Your task to perform on an android device: Go to ESPN.com Image 0: 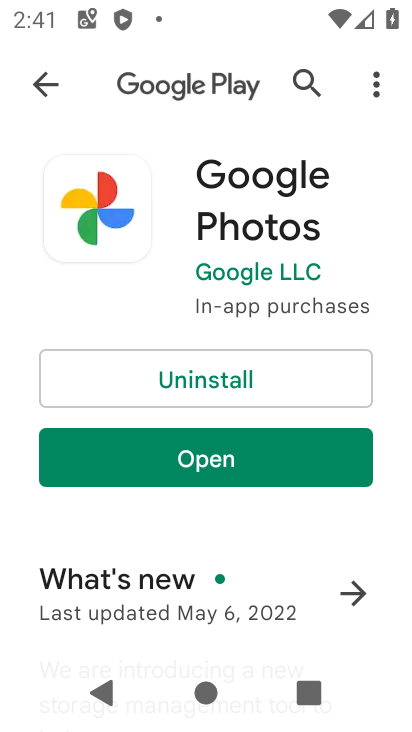
Step 0: press home button
Your task to perform on an android device: Go to ESPN.com Image 1: 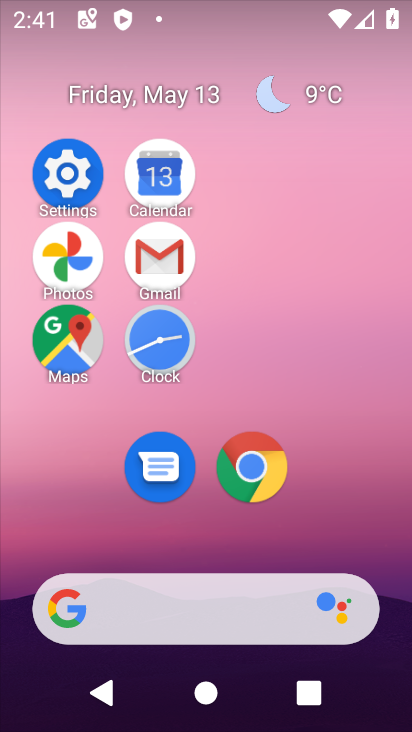
Step 1: click (255, 472)
Your task to perform on an android device: Go to ESPN.com Image 2: 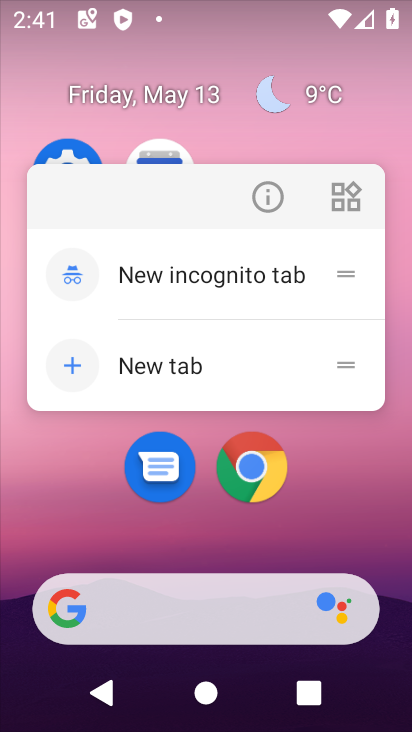
Step 2: click (251, 460)
Your task to perform on an android device: Go to ESPN.com Image 3: 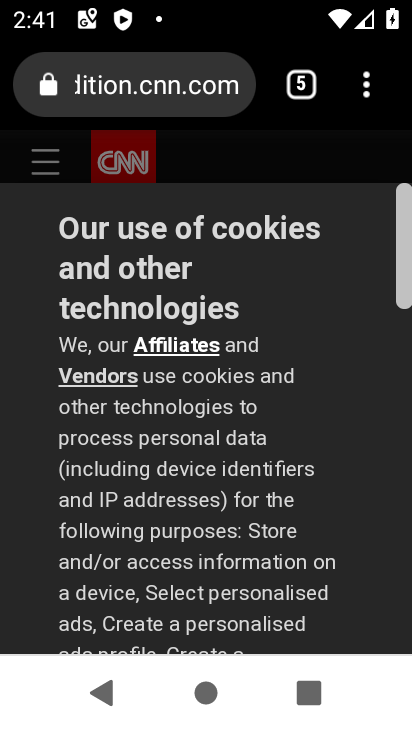
Step 3: click (298, 89)
Your task to perform on an android device: Go to ESPN.com Image 4: 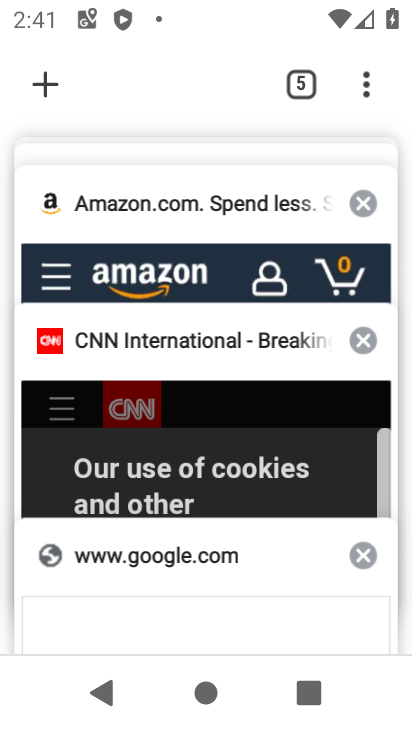
Step 4: drag from (195, 198) to (150, 519)
Your task to perform on an android device: Go to ESPN.com Image 5: 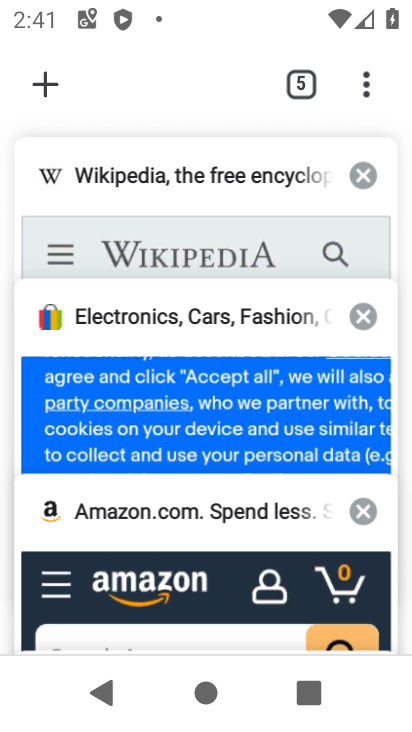
Step 5: click (25, 85)
Your task to perform on an android device: Go to ESPN.com Image 6: 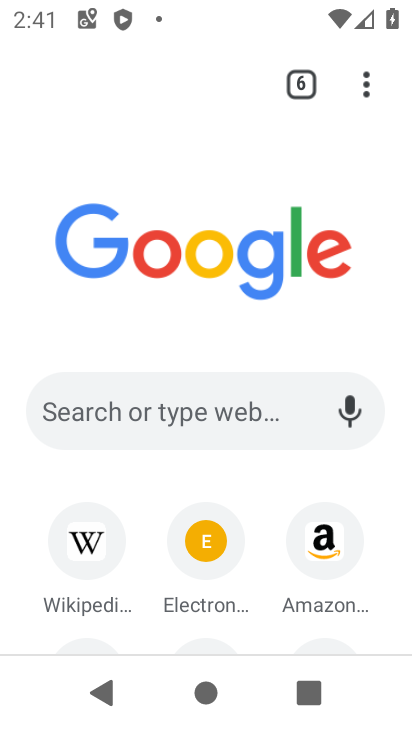
Step 6: drag from (161, 480) to (187, 209)
Your task to perform on an android device: Go to ESPN.com Image 7: 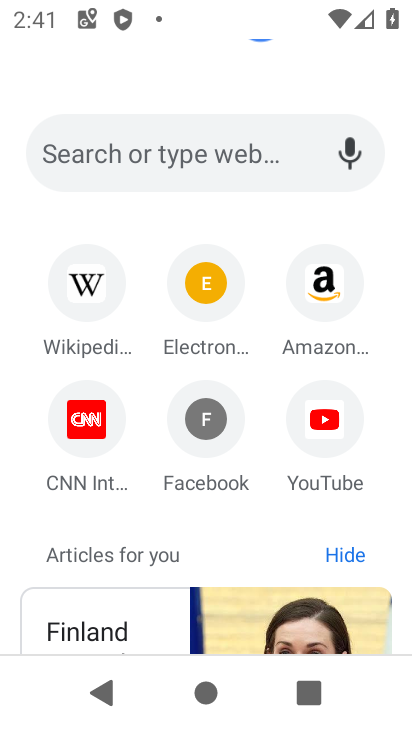
Step 7: click (192, 173)
Your task to perform on an android device: Go to ESPN.com Image 8: 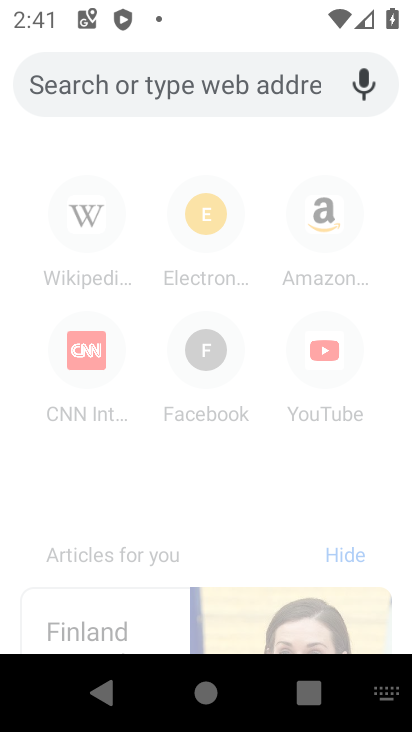
Step 8: type "espn"
Your task to perform on an android device: Go to ESPN.com Image 9: 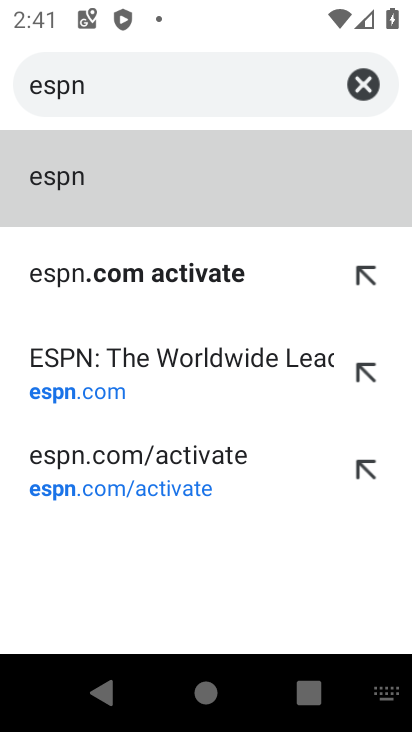
Step 9: click (107, 384)
Your task to perform on an android device: Go to ESPN.com Image 10: 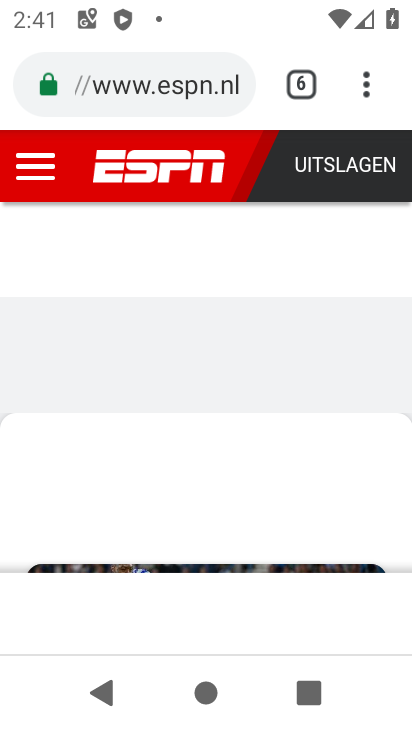
Step 10: task complete